Your task to perform on an android device: Open Android settings Image 0: 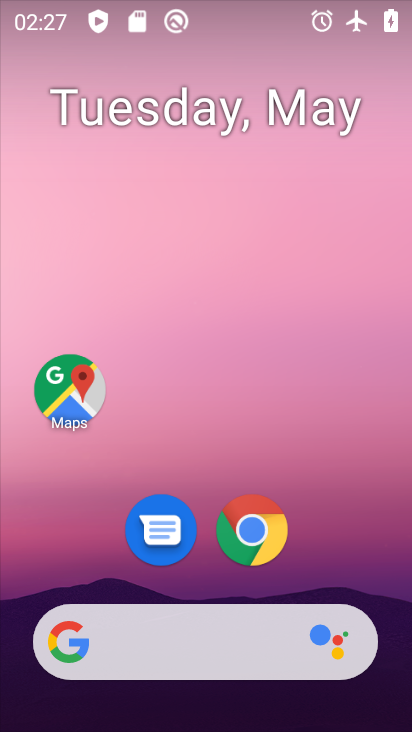
Step 0: drag from (234, 591) to (239, 175)
Your task to perform on an android device: Open Android settings Image 1: 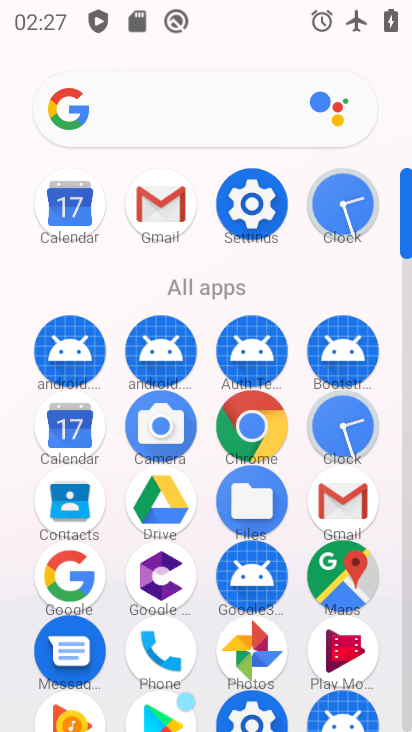
Step 1: click (242, 170)
Your task to perform on an android device: Open Android settings Image 2: 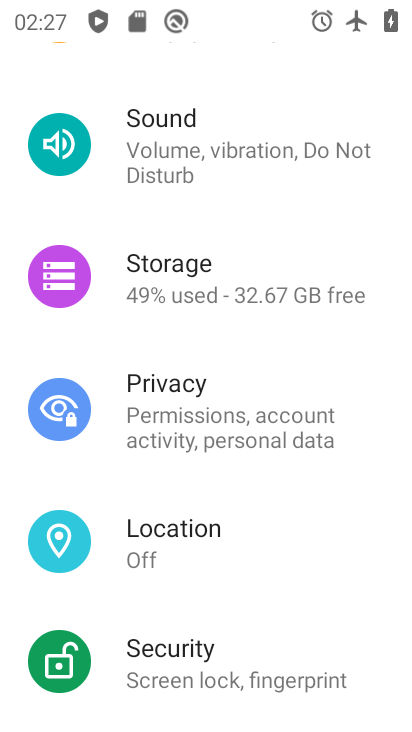
Step 2: task complete